Your task to perform on an android device: Open Maps and search for coffee Image 0: 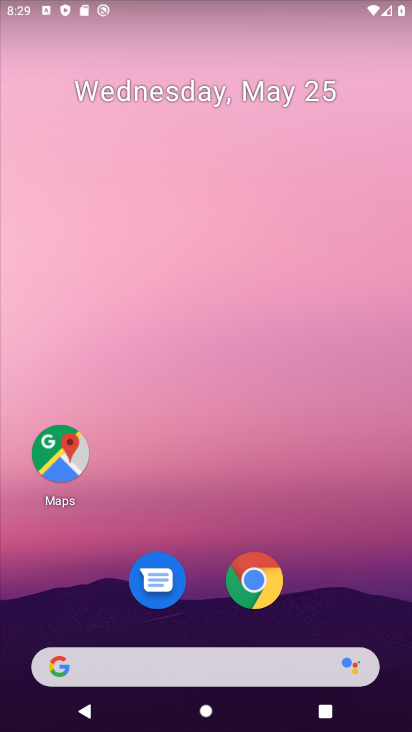
Step 0: click (65, 443)
Your task to perform on an android device: Open Maps and search for coffee Image 1: 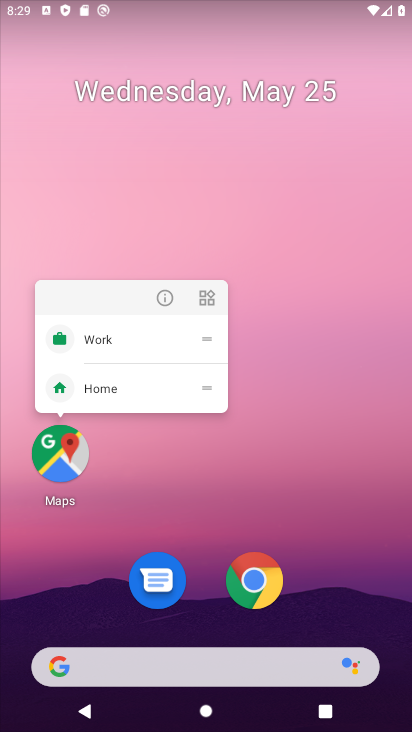
Step 1: click (59, 454)
Your task to perform on an android device: Open Maps and search for coffee Image 2: 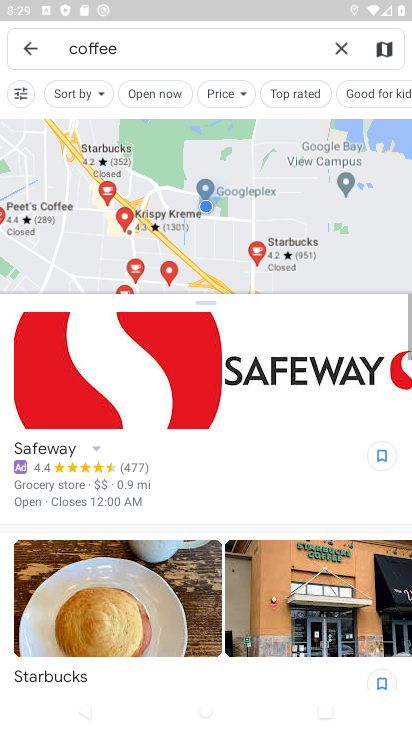
Step 2: task complete